Your task to perform on an android device: Open calendar and show me the fourth week of next month Image 0: 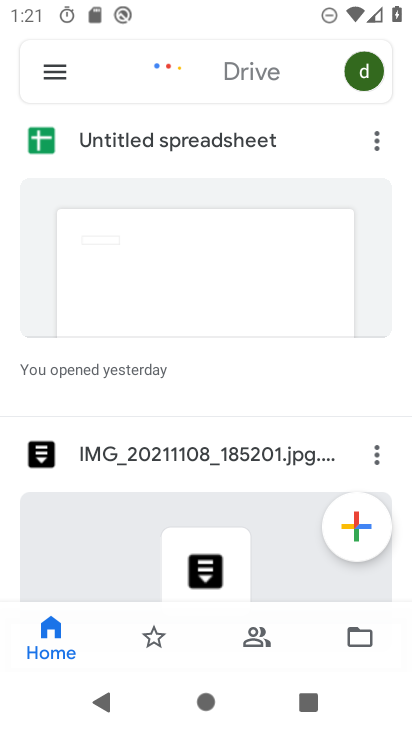
Step 0: press home button
Your task to perform on an android device: Open calendar and show me the fourth week of next month Image 1: 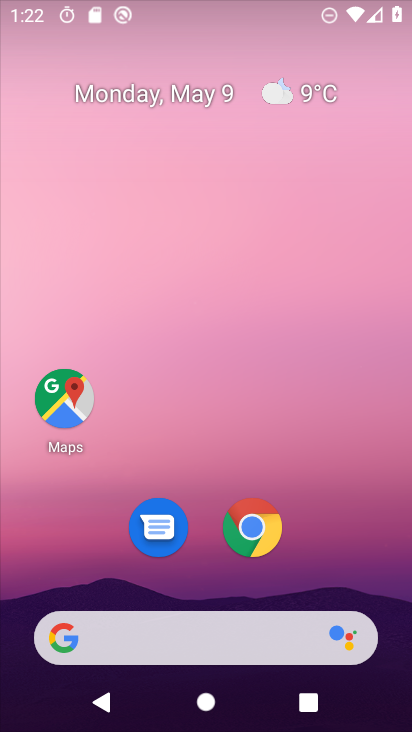
Step 1: drag from (154, 574) to (261, 47)
Your task to perform on an android device: Open calendar and show me the fourth week of next month Image 2: 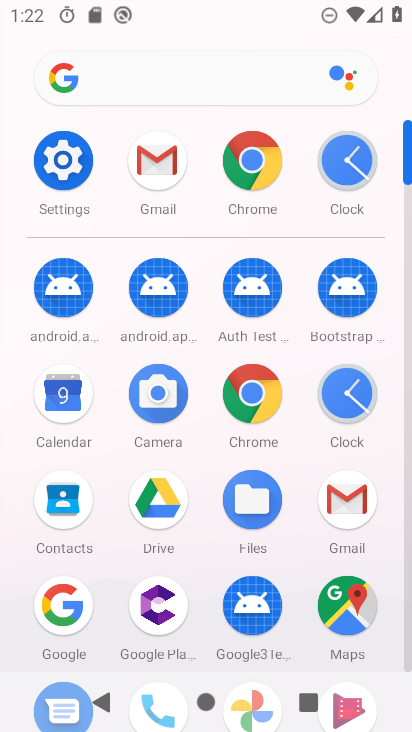
Step 2: click (59, 394)
Your task to perform on an android device: Open calendar and show me the fourth week of next month Image 3: 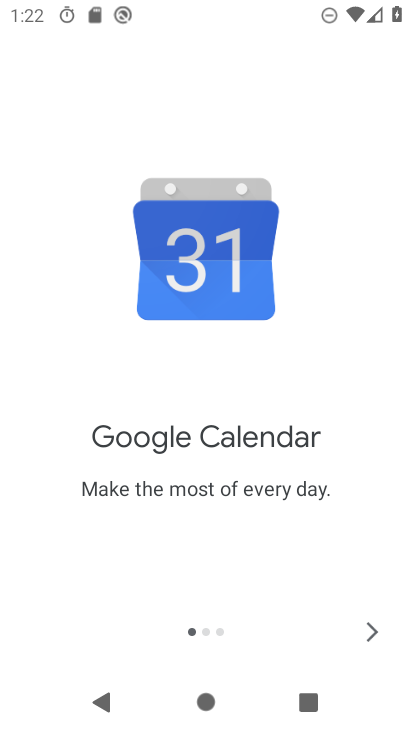
Step 3: click (366, 628)
Your task to perform on an android device: Open calendar and show me the fourth week of next month Image 4: 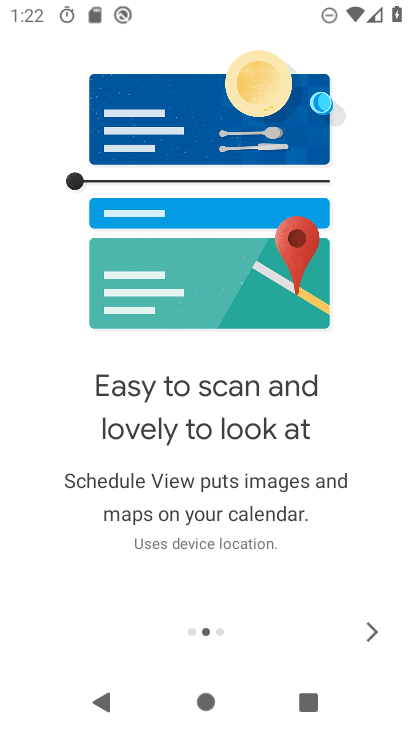
Step 4: click (354, 617)
Your task to perform on an android device: Open calendar and show me the fourth week of next month Image 5: 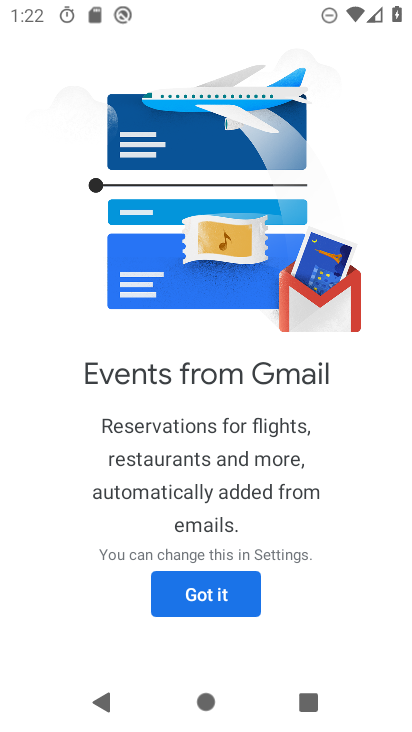
Step 5: click (195, 598)
Your task to perform on an android device: Open calendar and show me the fourth week of next month Image 6: 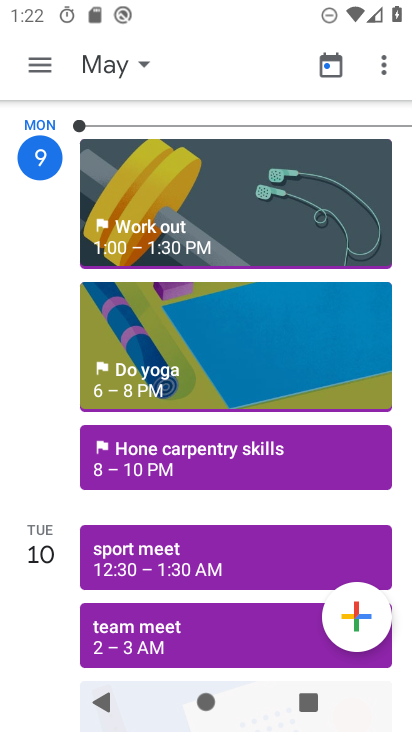
Step 6: click (113, 57)
Your task to perform on an android device: Open calendar and show me the fourth week of next month Image 7: 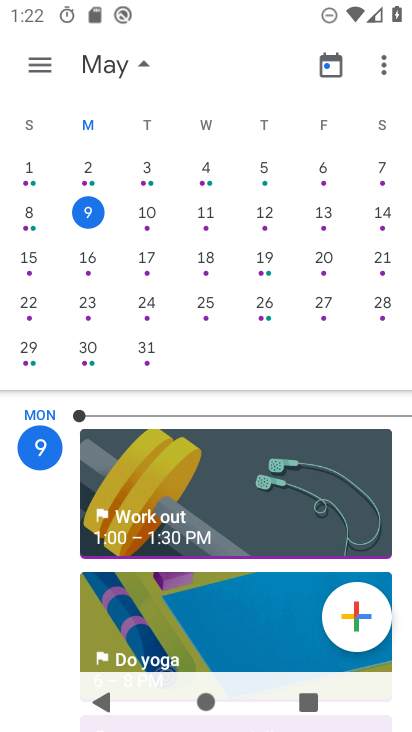
Step 7: drag from (404, 284) to (38, 248)
Your task to perform on an android device: Open calendar and show me the fourth week of next month Image 8: 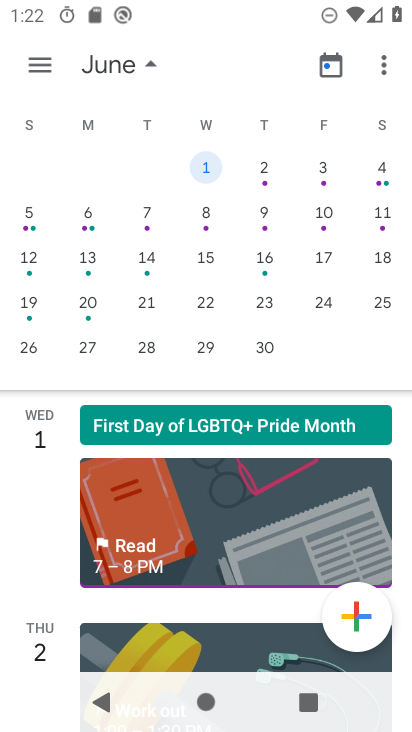
Step 8: click (83, 332)
Your task to perform on an android device: Open calendar and show me the fourth week of next month Image 9: 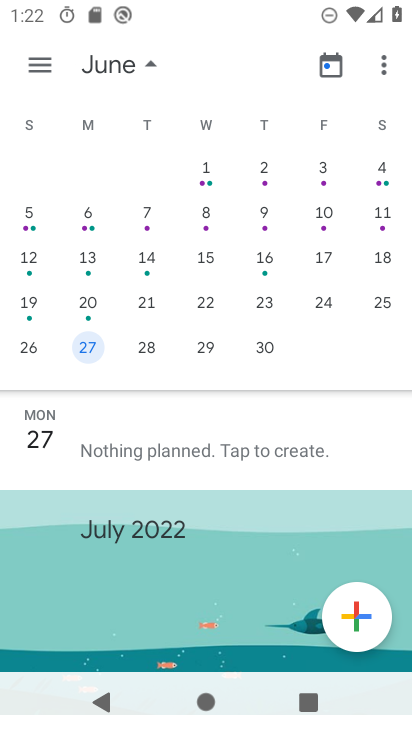
Step 9: task complete